Your task to perform on an android device: Is it going to rain tomorrow? Image 0: 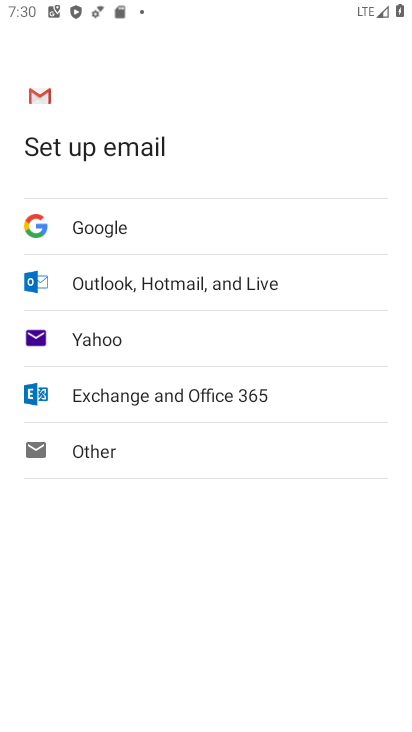
Step 0: drag from (287, 620) to (301, 225)
Your task to perform on an android device: Is it going to rain tomorrow? Image 1: 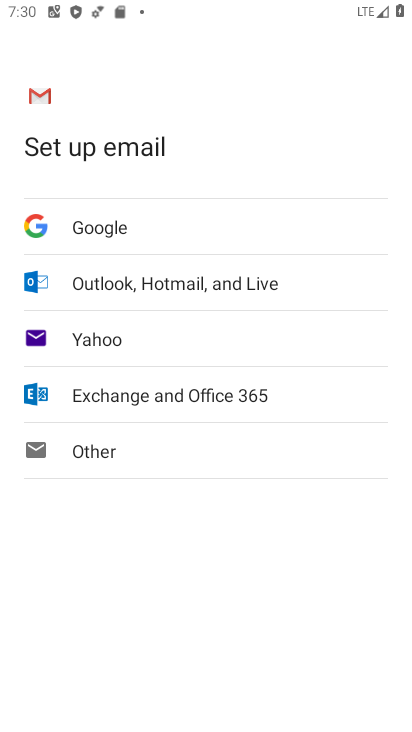
Step 1: press home button
Your task to perform on an android device: Is it going to rain tomorrow? Image 2: 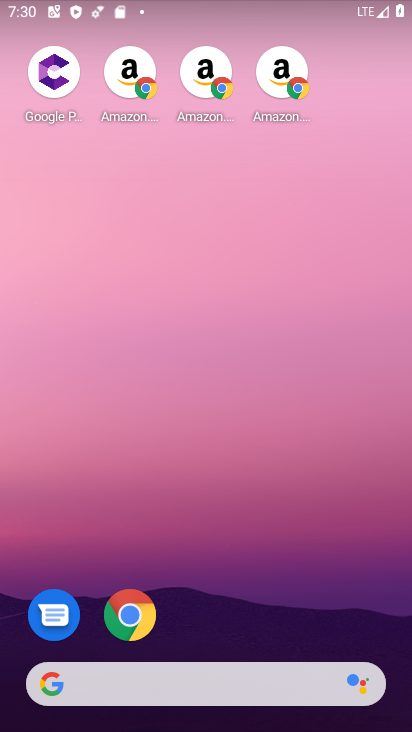
Step 2: drag from (272, 636) to (324, 129)
Your task to perform on an android device: Is it going to rain tomorrow? Image 3: 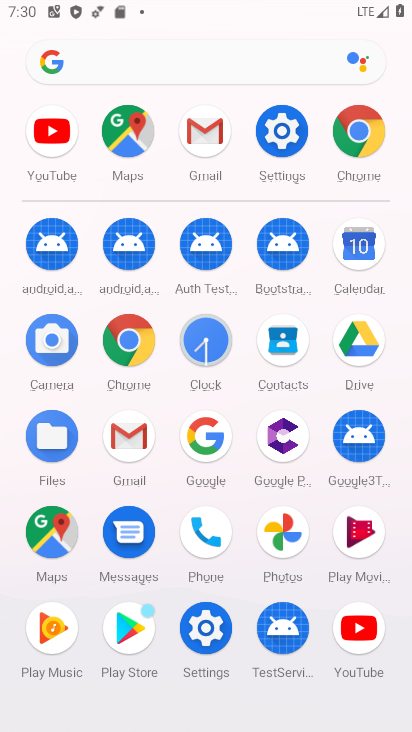
Step 3: press home button
Your task to perform on an android device: Is it going to rain tomorrow? Image 4: 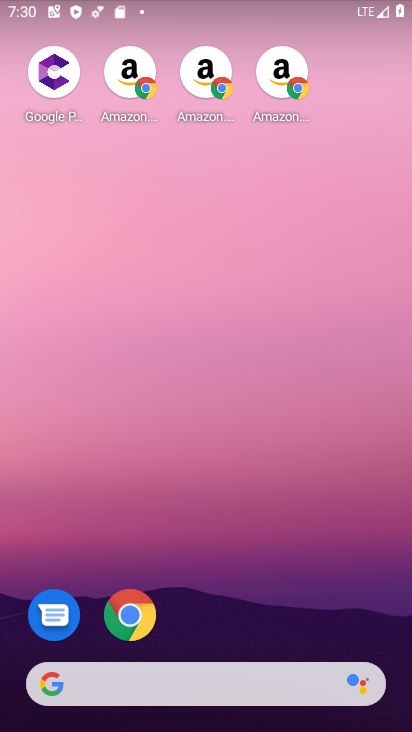
Step 4: drag from (148, 400) to (406, 332)
Your task to perform on an android device: Is it going to rain tomorrow? Image 5: 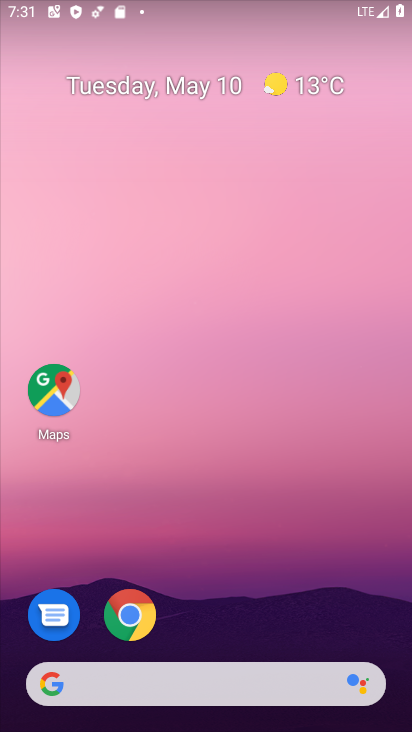
Step 5: click (249, 89)
Your task to perform on an android device: Is it going to rain tomorrow? Image 6: 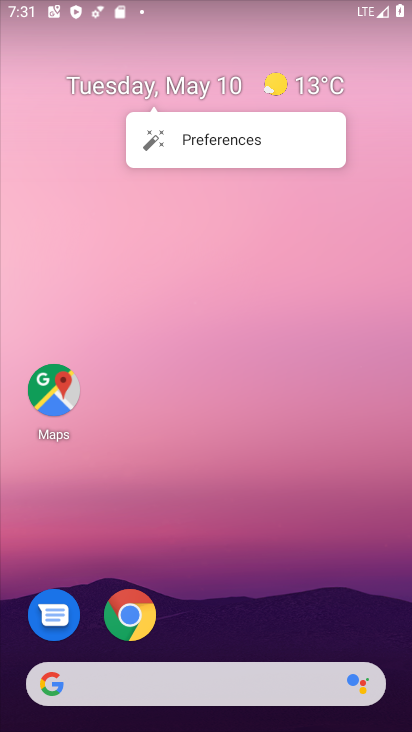
Step 6: click (240, 90)
Your task to perform on an android device: Is it going to rain tomorrow? Image 7: 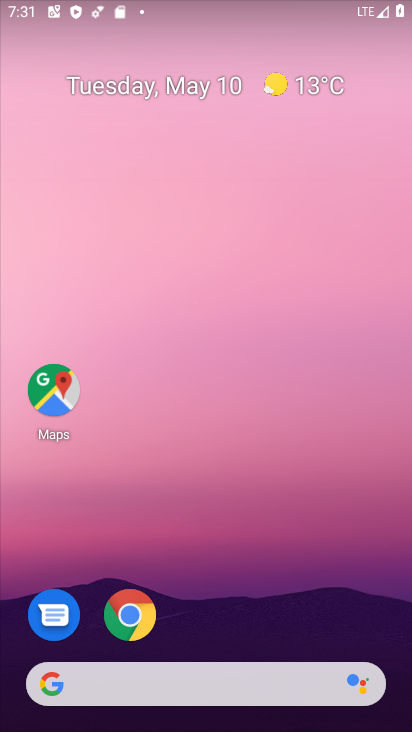
Step 7: click (325, 93)
Your task to perform on an android device: Is it going to rain tomorrow? Image 8: 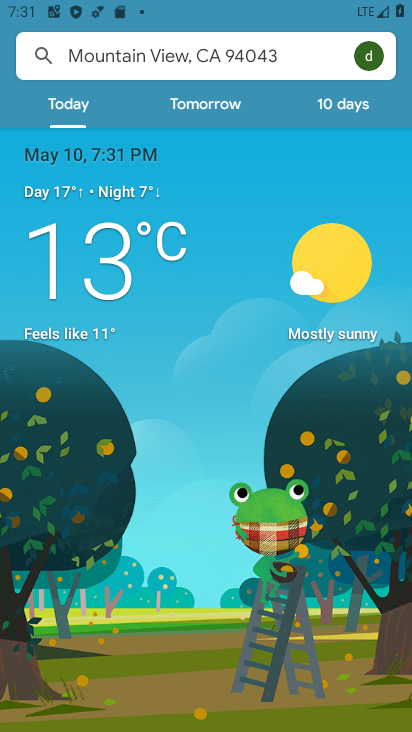
Step 8: click (228, 111)
Your task to perform on an android device: Is it going to rain tomorrow? Image 9: 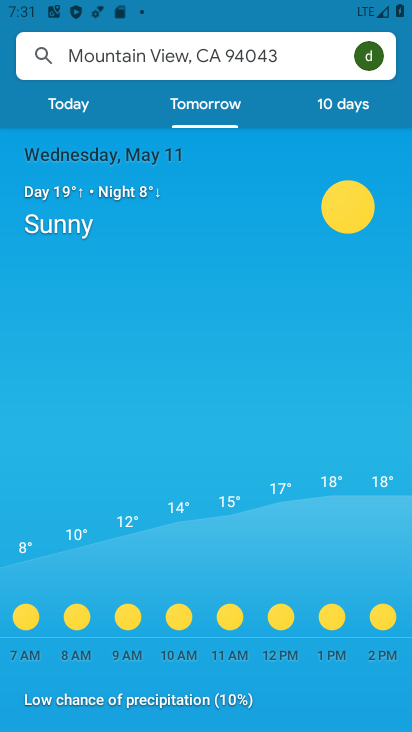
Step 9: task complete